Your task to perform on an android device: turn on bluetooth scan Image 0: 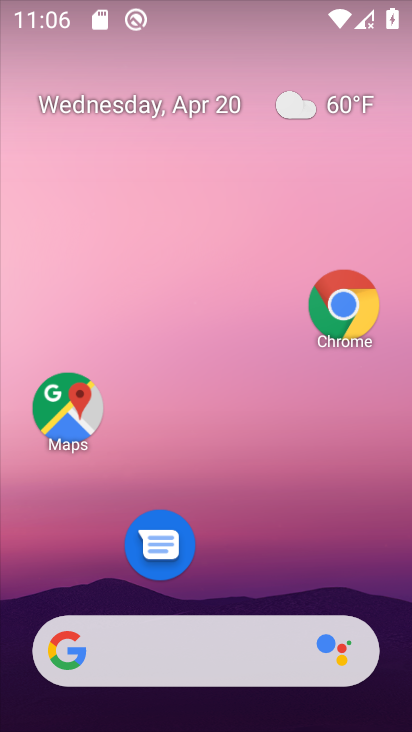
Step 0: drag from (224, 629) to (342, 176)
Your task to perform on an android device: turn on bluetooth scan Image 1: 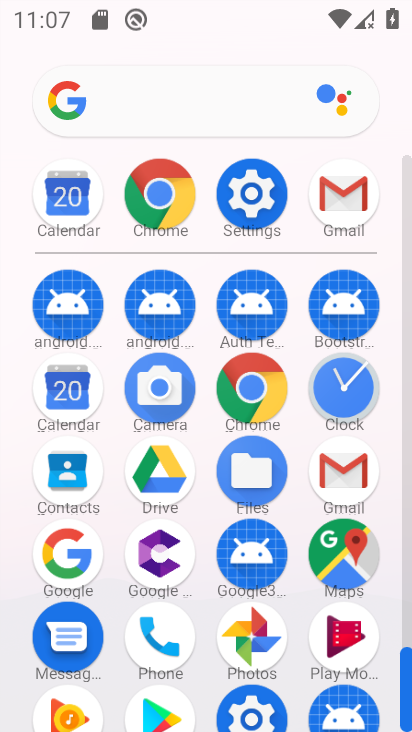
Step 1: click (244, 222)
Your task to perform on an android device: turn on bluetooth scan Image 2: 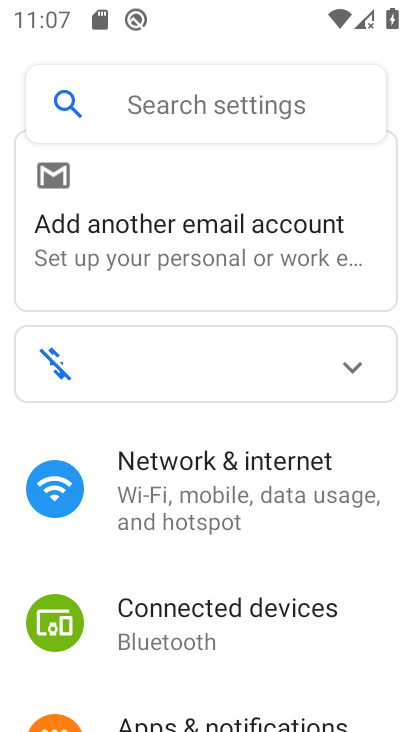
Step 2: click (239, 617)
Your task to perform on an android device: turn on bluetooth scan Image 3: 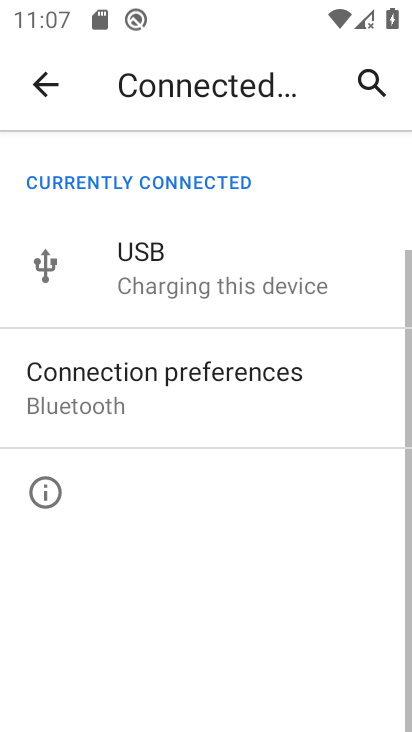
Step 3: click (215, 398)
Your task to perform on an android device: turn on bluetooth scan Image 4: 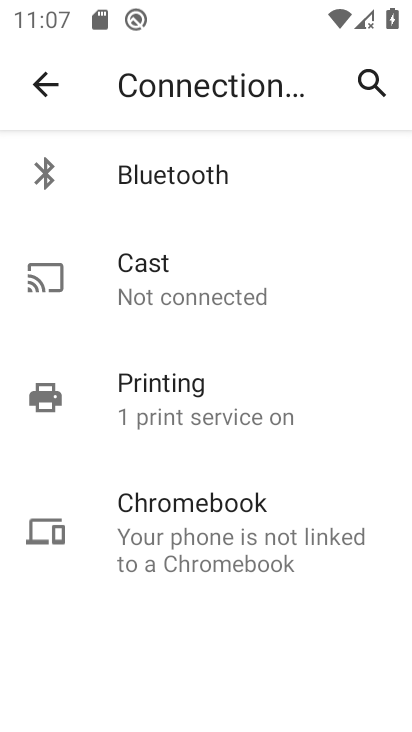
Step 4: click (220, 186)
Your task to perform on an android device: turn on bluetooth scan Image 5: 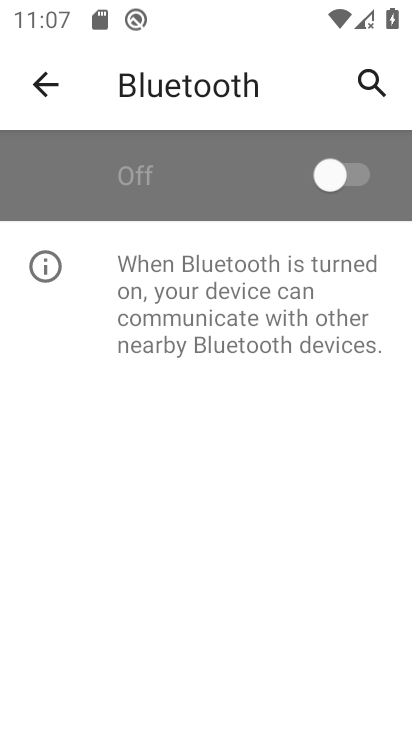
Step 5: click (323, 176)
Your task to perform on an android device: turn on bluetooth scan Image 6: 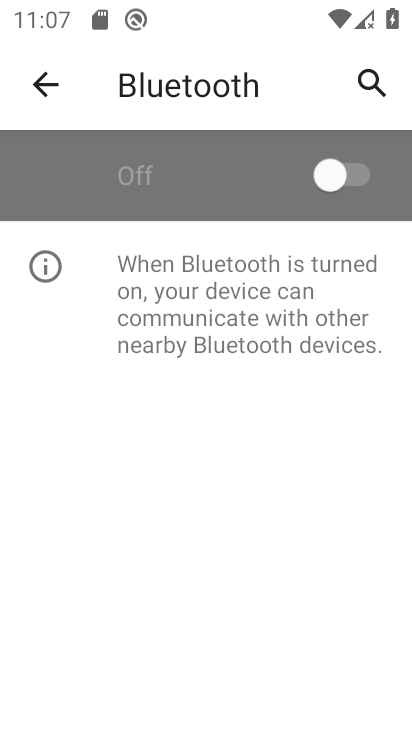
Step 6: task complete